Your task to perform on an android device: find snoozed emails in the gmail app Image 0: 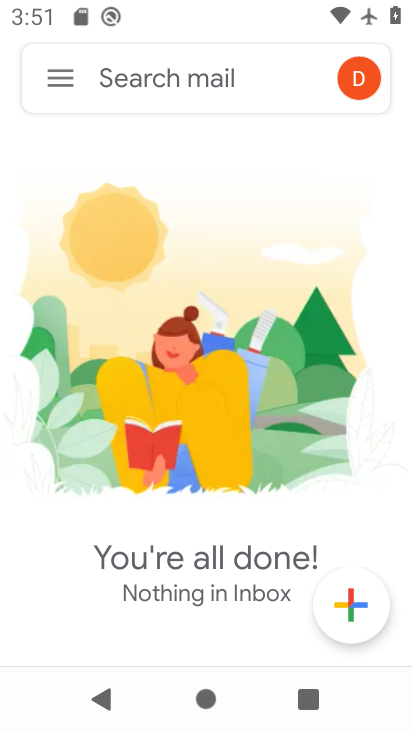
Step 0: click (67, 75)
Your task to perform on an android device: find snoozed emails in the gmail app Image 1: 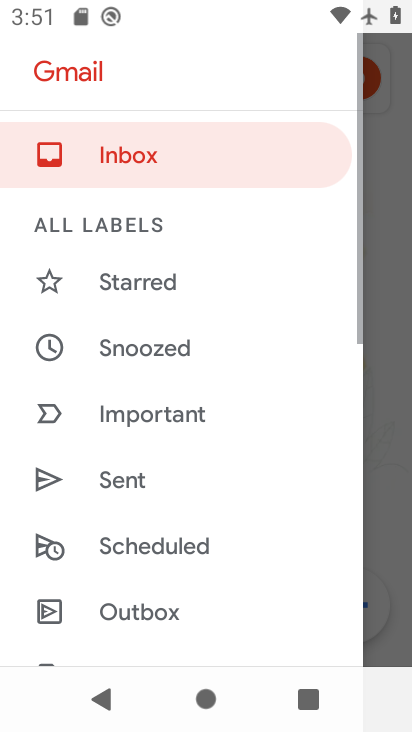
Step 1: click (176, 355)
Your task to perform on an android device: find snoozed emails in the gmail app Image 2: 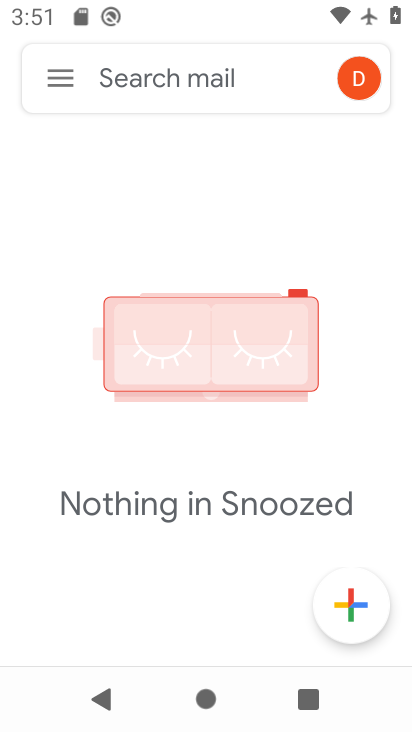
Step 2: task complete